Your task to perform on an android device: empty trash in the gmail app Image 0: 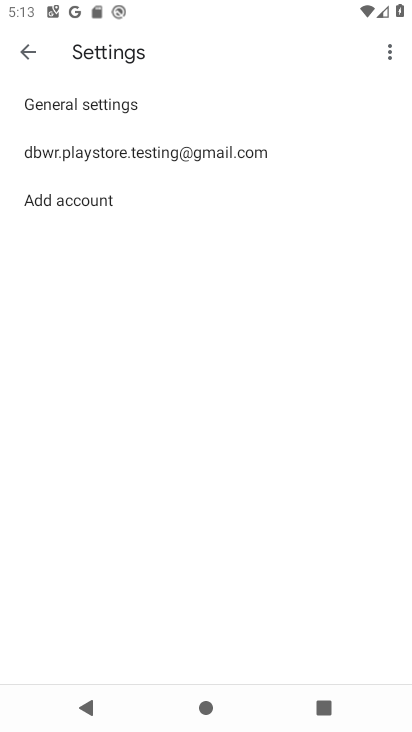
Step 0: press back button
Your task to perform on an android device: empty trash in the gmail app Image 1: 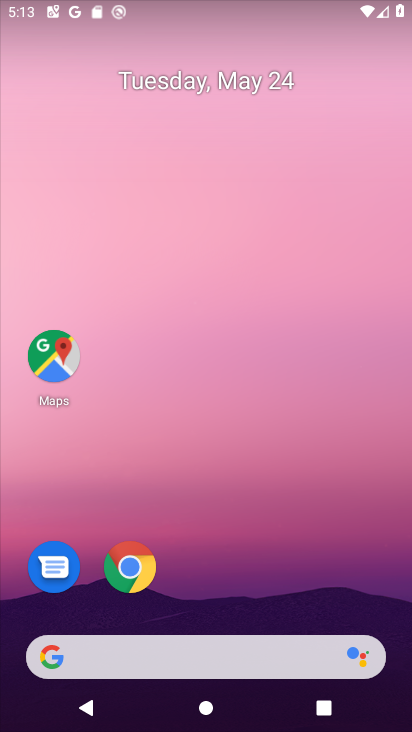
Step 1: drag from (244, 562) to (185, 100)
Your task to perform on an android device: empty trash in the gmail app Image 2: 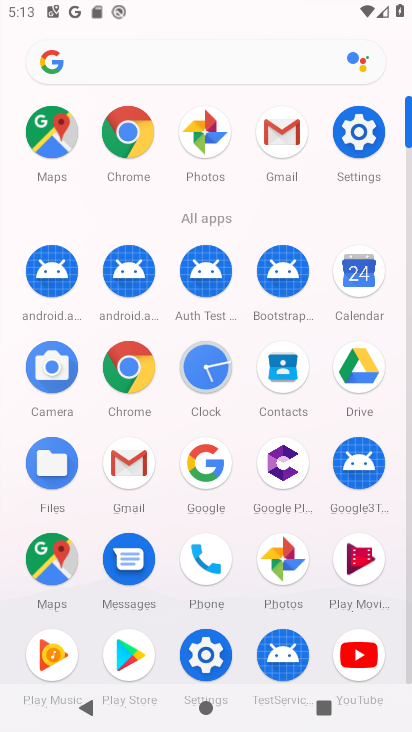
Step 2: click (279, 130)
Your task to perform on an android device: empty trash in the gmail app Image 3: 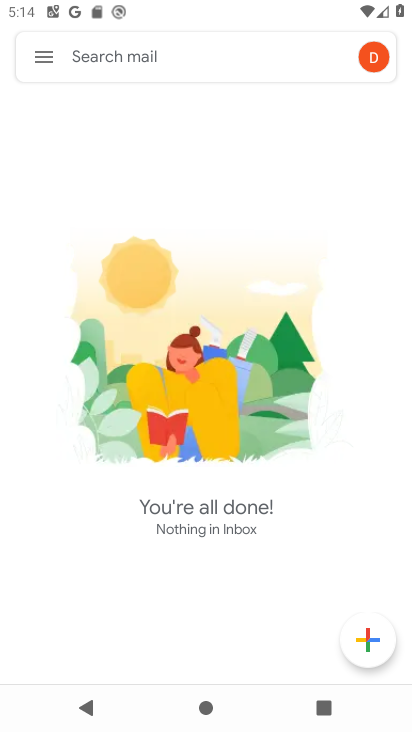
Step 3: click (47, 58)
Your task to perform on an android device: empty trash in the gmail app Image 4: 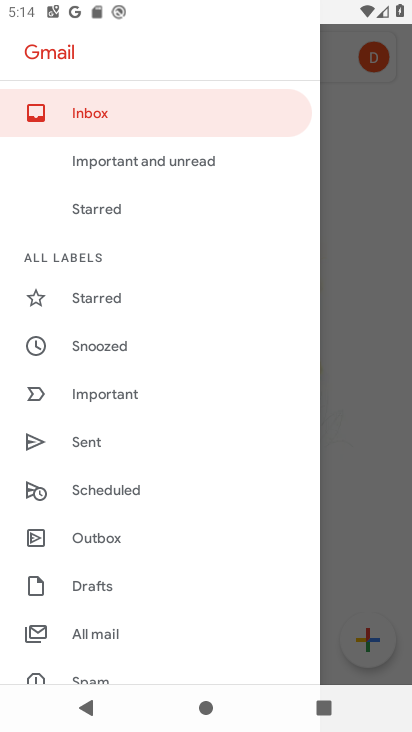
Step 4: drag from (97, 415) to (89, 347)
Your task to perform on an android device: empty trash in the gmail app Image 5: 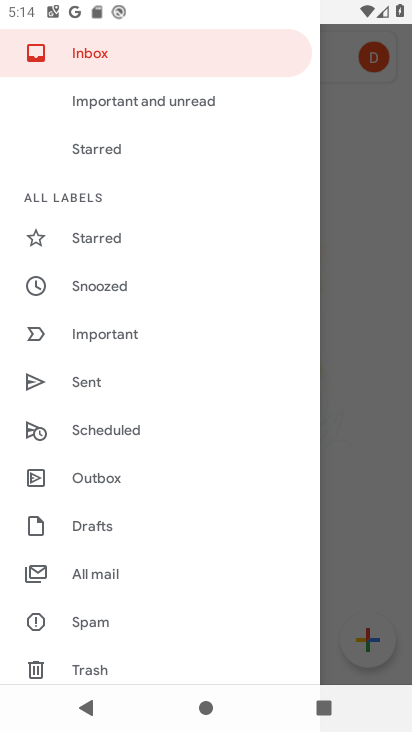
Step 5: drag from (98, 448) to (87, 374)
Your task to perform on an android device: empty trash in the gmail app Image 6: 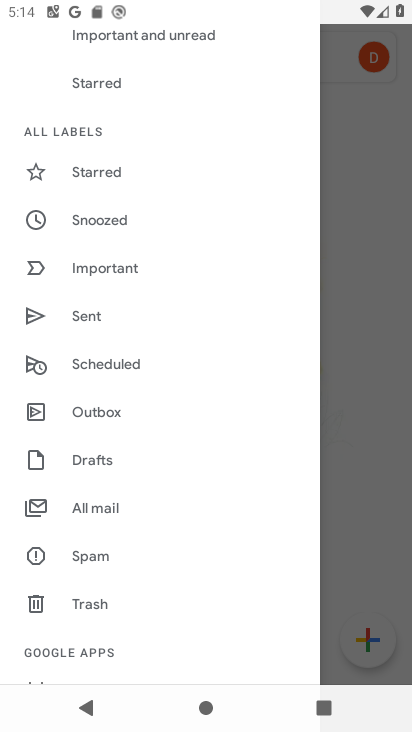
Step 6: click (93, 604)
Your task to perform on an android device: empty trash in the gmail app Image 7: 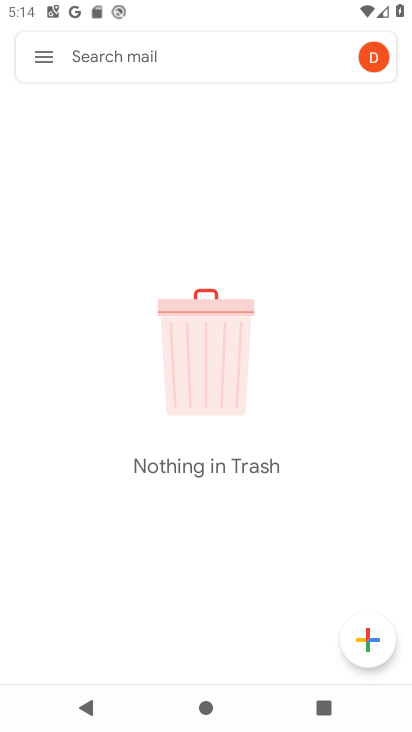
Step 7: task complete